Your task to perform on an android device: What's on my calendar today? Image 0: 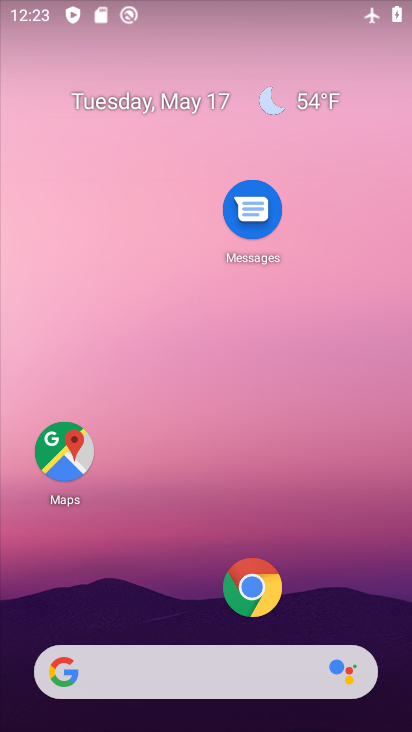
Step 0: drag from (175, 595) to (260, 109)
Your task to perform on an android device: What's on my calendar today? Image 1: 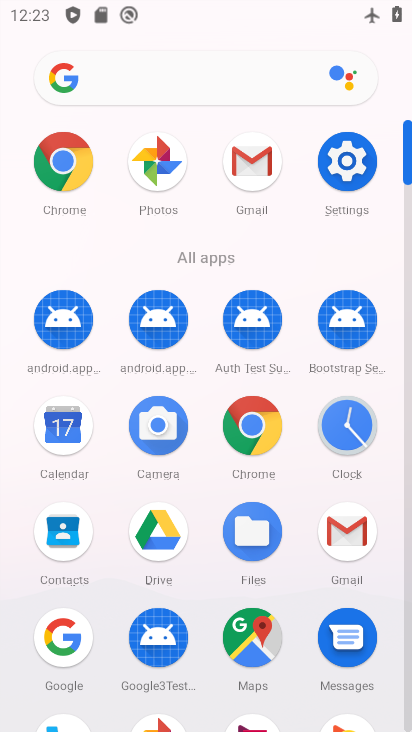
Step 1: click (72, 435)
Your task to perform on an android device: What's on my calendar today? Image 2: 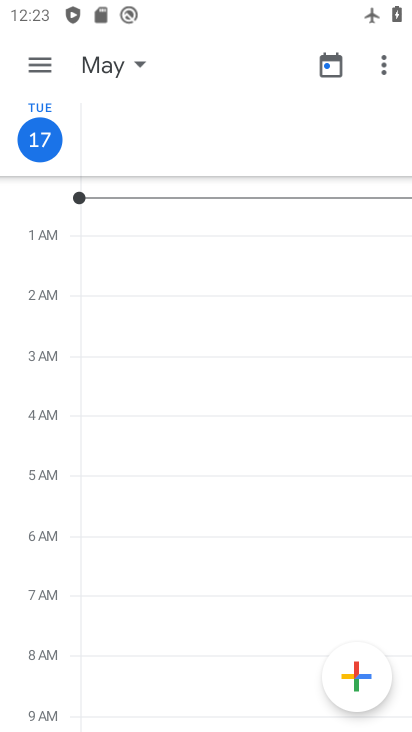
Step 2: task complete